Your task to perform on an android device: turn vacation reply on in the gmail app Image 0: 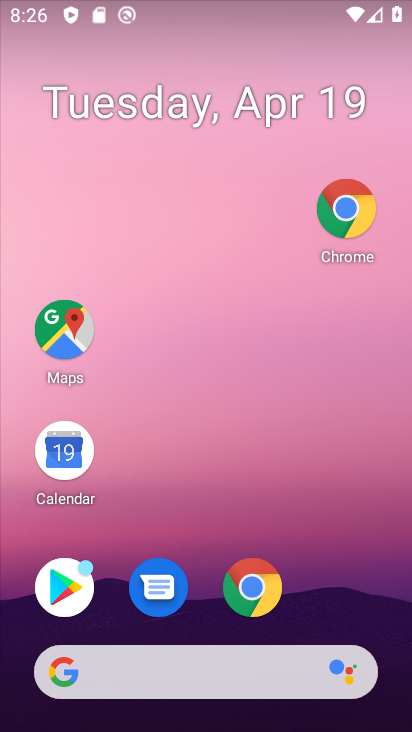
Step 0: drag from (321, 612) to (0, 72)
Your task to perform on an android device: turn vacation reply on in the gmail app Image 1: 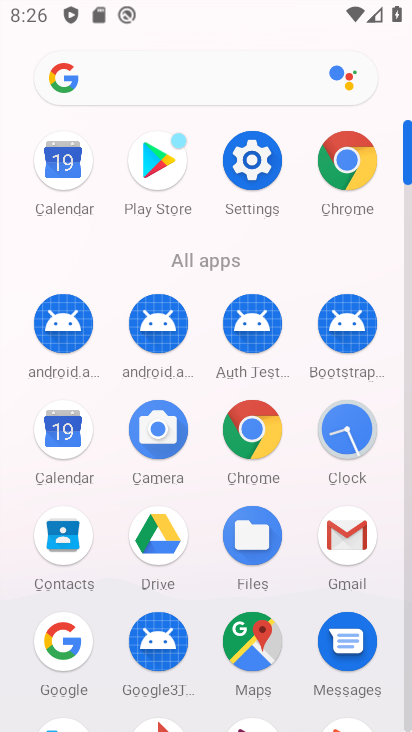
Step 1: click (357, 530)
Your task to perform on an android device: turn vacation reply on in the gmail app Image 2: 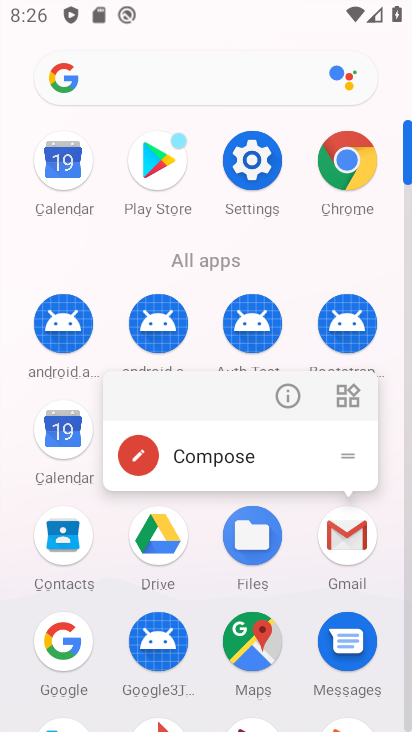
Step 2: click (357, 530)
Your task to perform on an android device: turn vacation reply on in the gmail app Image 3: 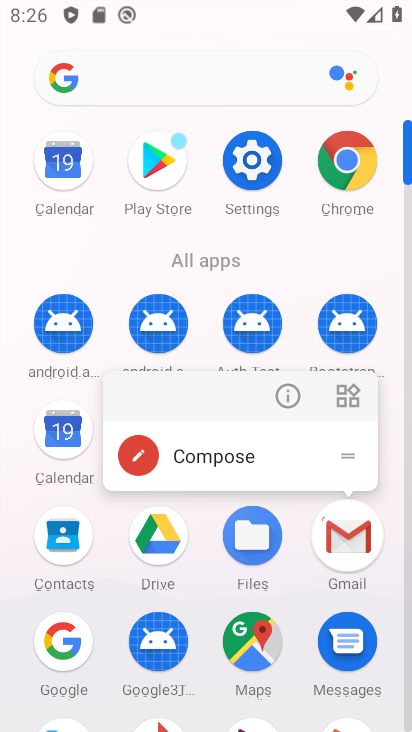
Step 3: click (357, 530)
Your task to perform on an android device: turn vacation reply on in the gmail app Image 4: 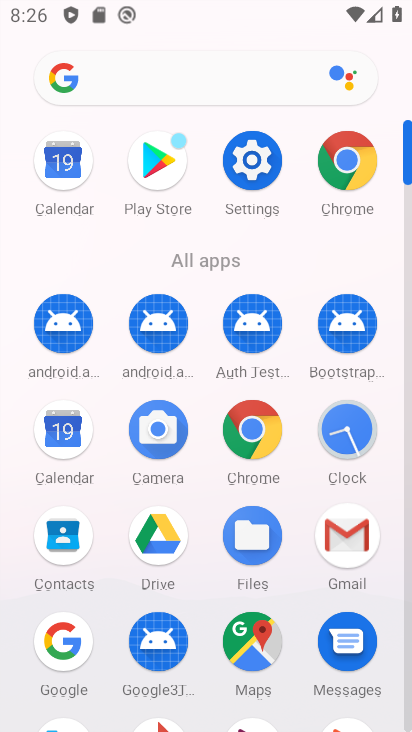
Step 4: click (357, 529)
Your task to perform on an android device: turn vacation reply on in the gmail app Image 5: 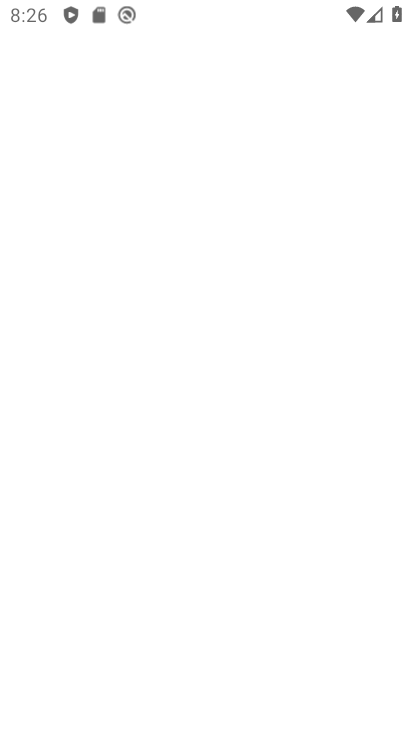
Step 5: click (359, 529)
Your task to perform on an android device: turn vacation reply on in the gmail app Image 6: 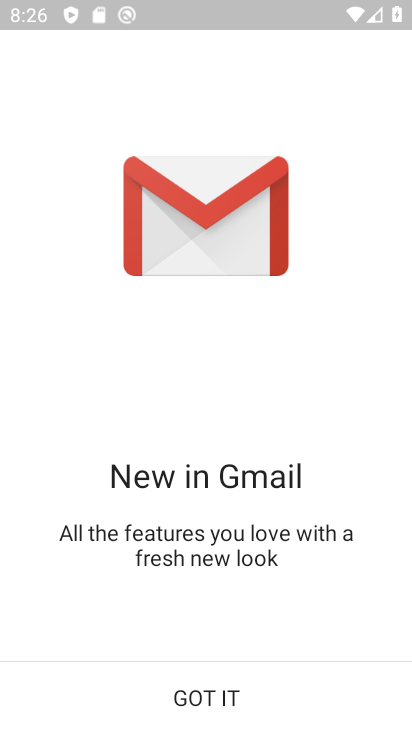
Step 6: click (193, 687)
Your task to perform on an android device: turn vacation reply on in the gmail app Image 7: 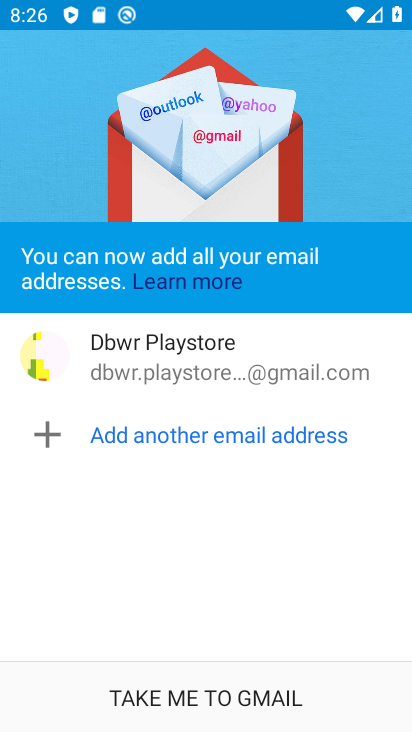
Step 7: click (230, 681)
Your task to perform on an android device: turn vacation reply on in the gmail app Image 8: 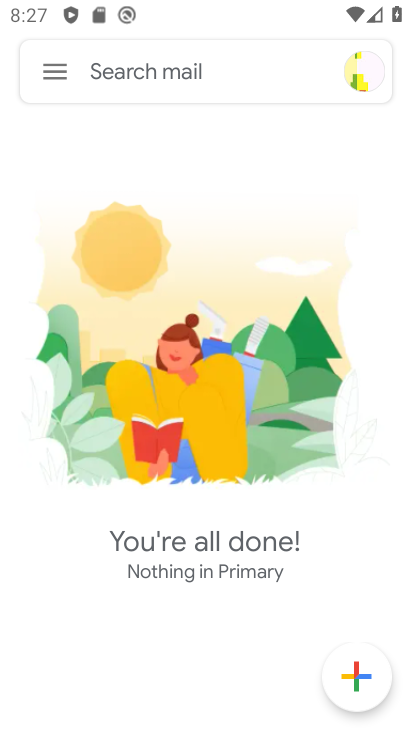
Step 8: click (55, 68)
Your task to perform on an android device: turn vacation reply on in the gmail app Image 9: 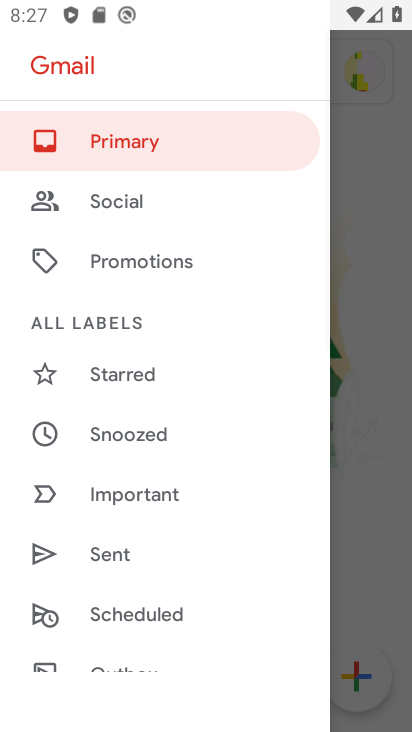
Step 9: drag from (218, 507) to (181, 7)
Your task to perform on an android device: turn vacation reply on in the gmail app Image 10: 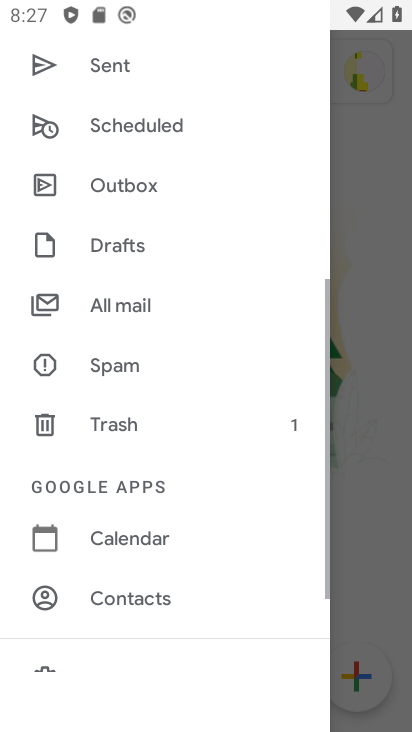
Step 10: drag from (229, 560) to (363, 4)
Your task to perform on an android device: turn vacation reply on in the gmail app Image 11: 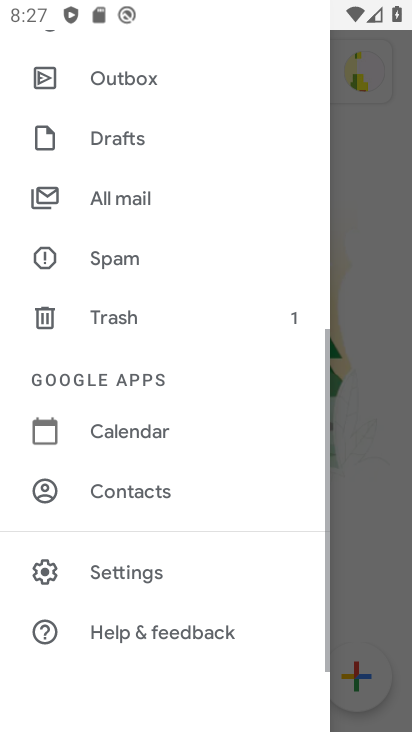
Step 11: drag from (233, 220) to (250, 22)
Your task to perform on an android device: turn vacation reply on in the gmail app Image 12: 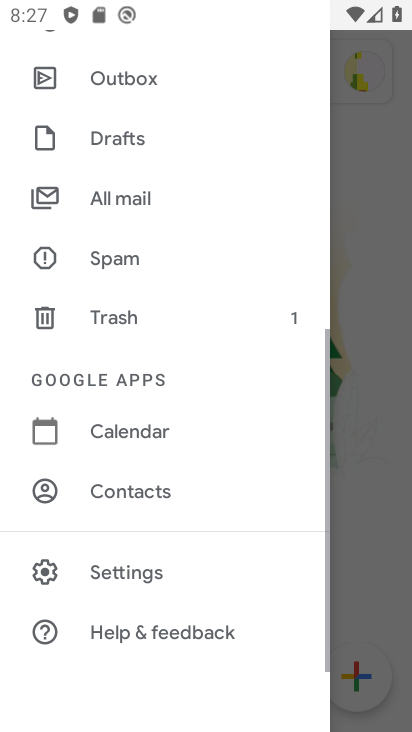
Step 12: click (136, 554)
Your task to perform on an android device: turn vacation reply on in the gmail app Image 13: 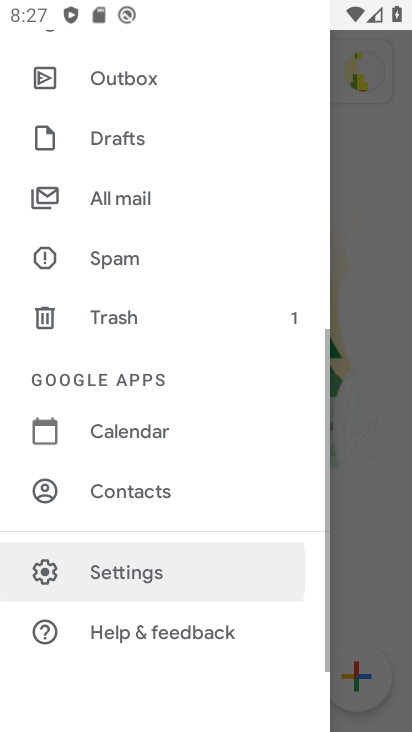
Step 13: click (139, 564)
Your task to perform on an android device: turn vacation reply on in the gmail app Image 14: 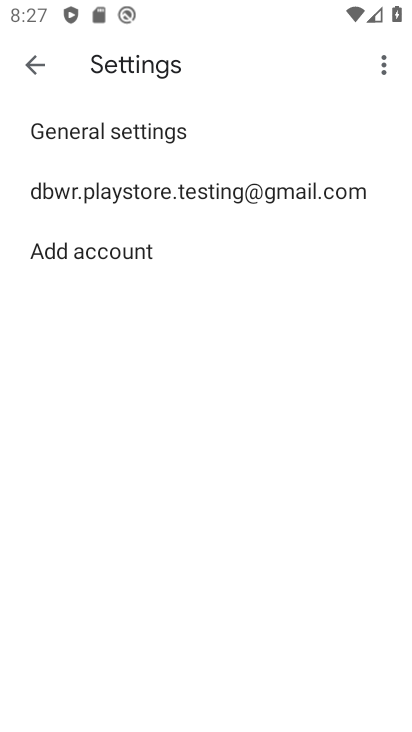
Step 14: click (155, 182)
Your task to perform on an android device: turn vacation reply on in the gmail app Image 15: 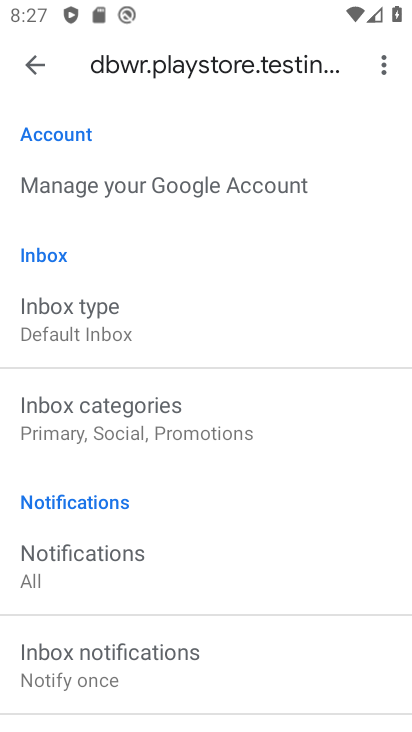
Step 15: drag from (156, 367) to (134, 85)
Your task to perform on an android device: turn vacation reply on in the gmail app Image 16: 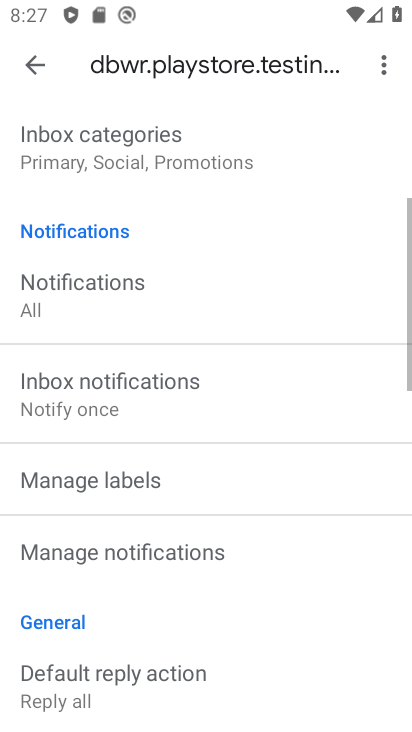
Step 16: drag from (243, 416) to (243, 241)
Your task to perform on an android device: turn vacation reply on in the gmail app Image 17: 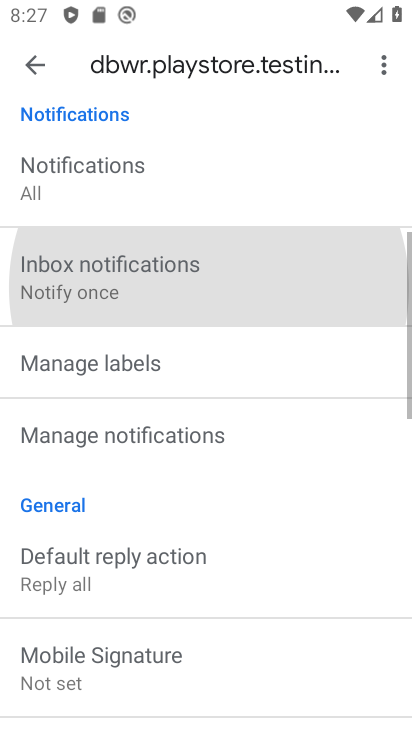
Step 17: drag from (228, 531) to (228, 246)
Your task to perform on an android device: turn vacation reply on in the gmail app Image 18: 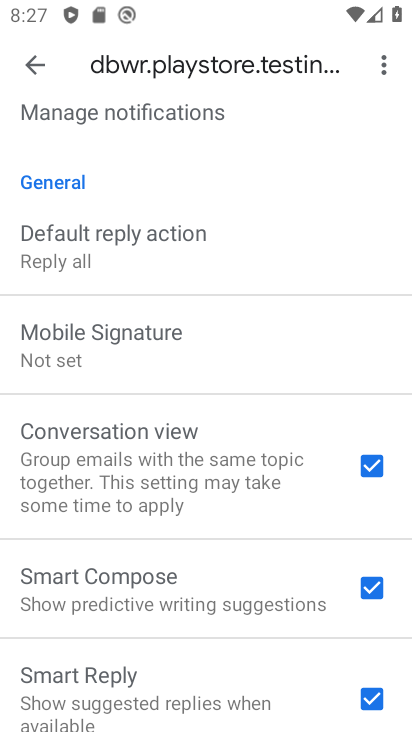
Step 18: drag from (220, 617) to (317, 204)
Your task to perform on an android device: turn vacation reply on in the gmail app Image 19: 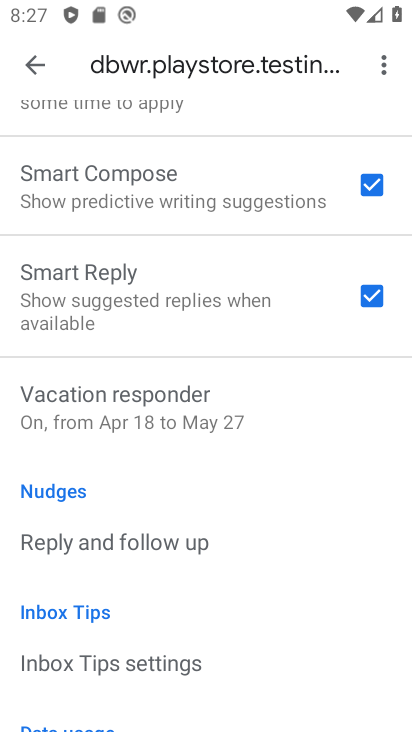
Step 19: click (133, 408)
Your task to perform on an android device: turn vacation reply on in the gmail app Image 20: 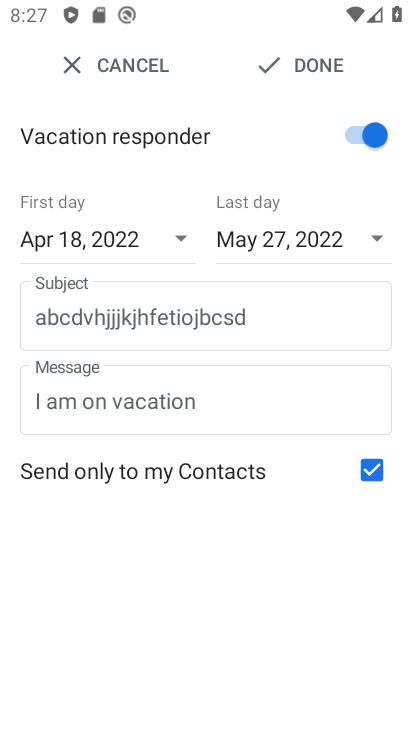
Step 20: task complete